Your task to perform on an android device: Open Chrome and go to the settings page Image 0: 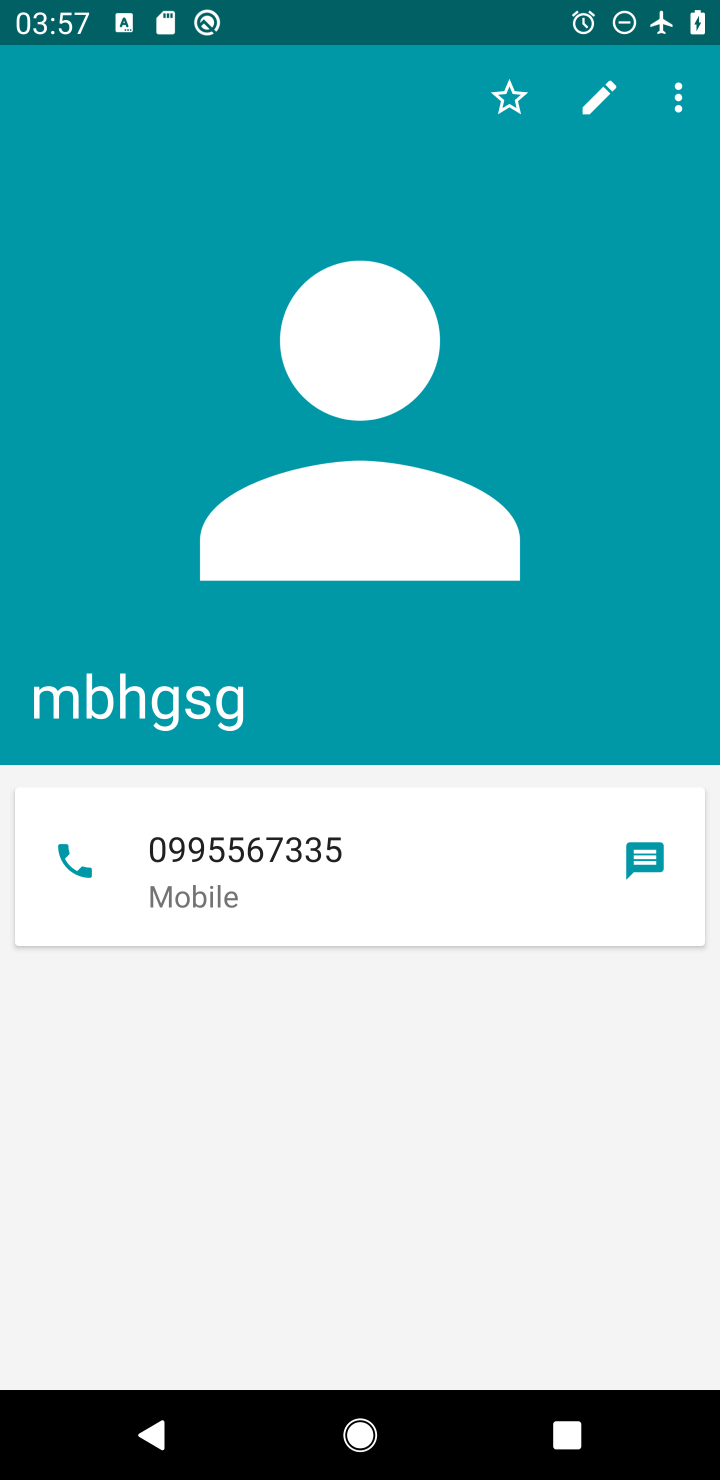
Step 0: press home button
Your task to perform on an android device: Open Chrome and go to the settings page Image 1: 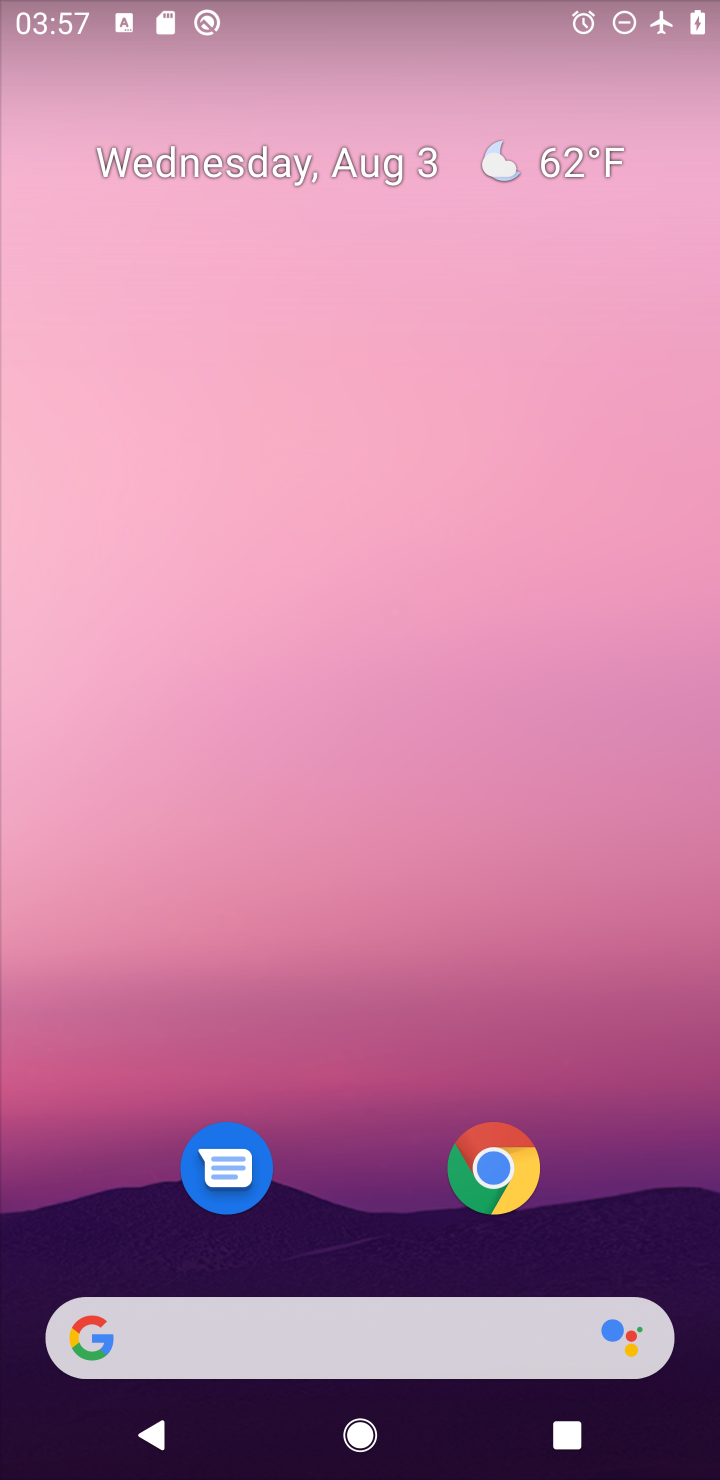
Step 1: click (496, 1168)
Your task to perform on an android device: Open Chrome and go to the settings page Image 2: 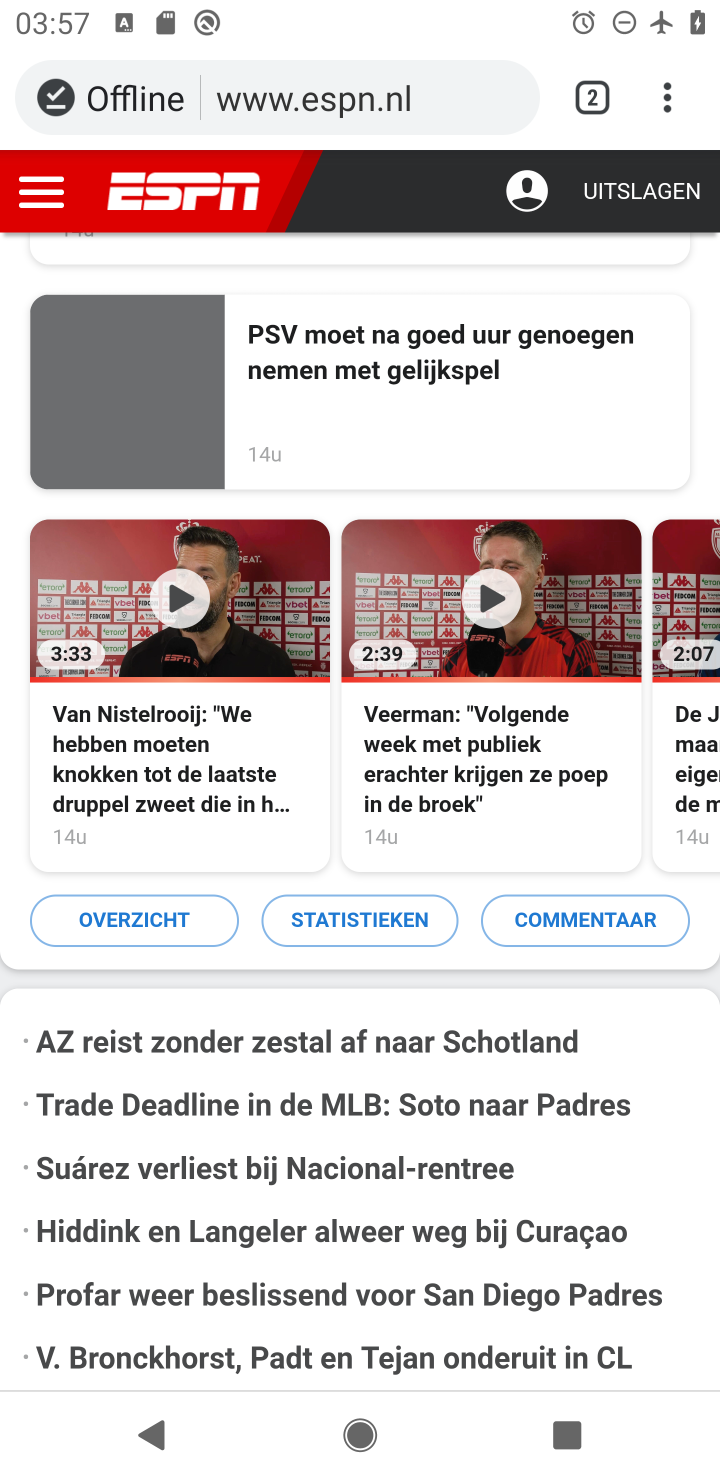
Step 2: click (658, 102)
Your task to perform on an android device: Open Chrome and go to the settings page Image 3: 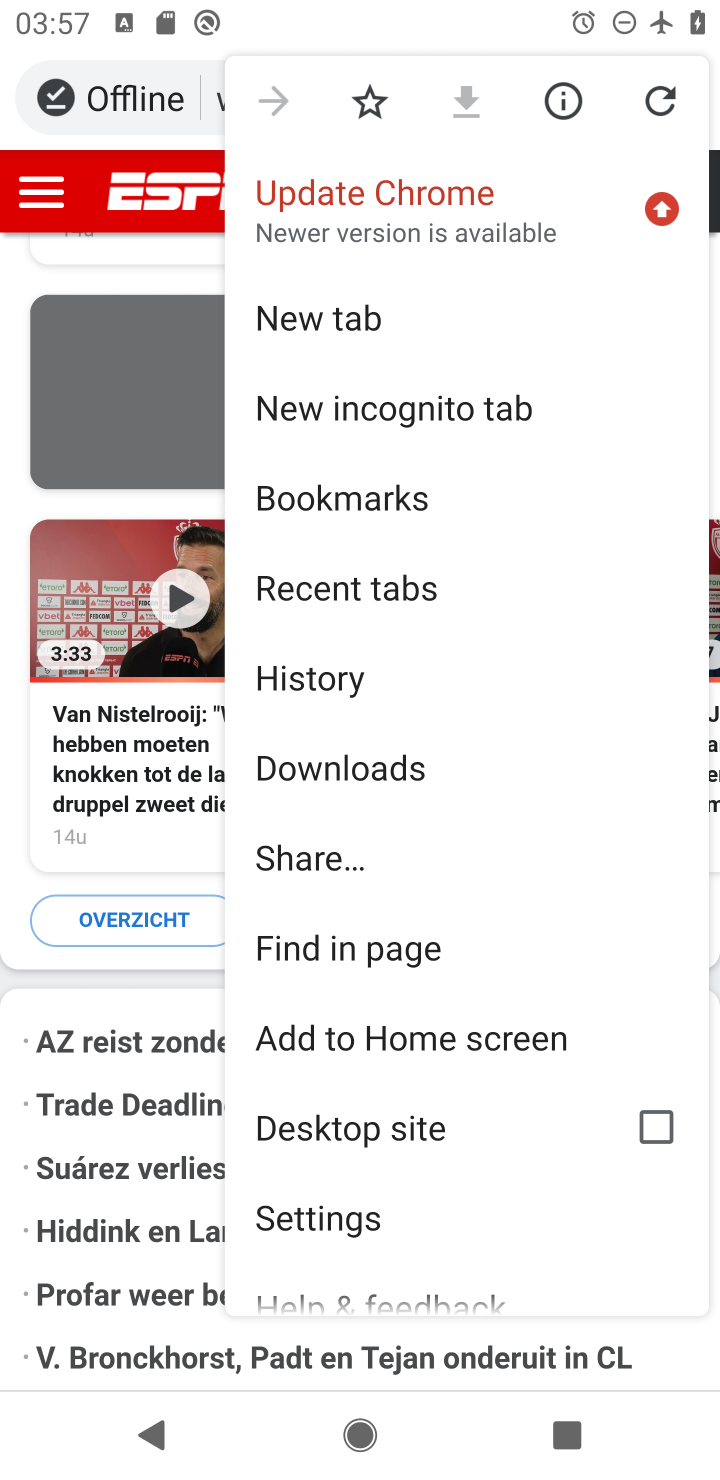
Step 3: click (326, 1219)
Your task to perform on an android device: Open Chrome and go to the settings page Image 4: 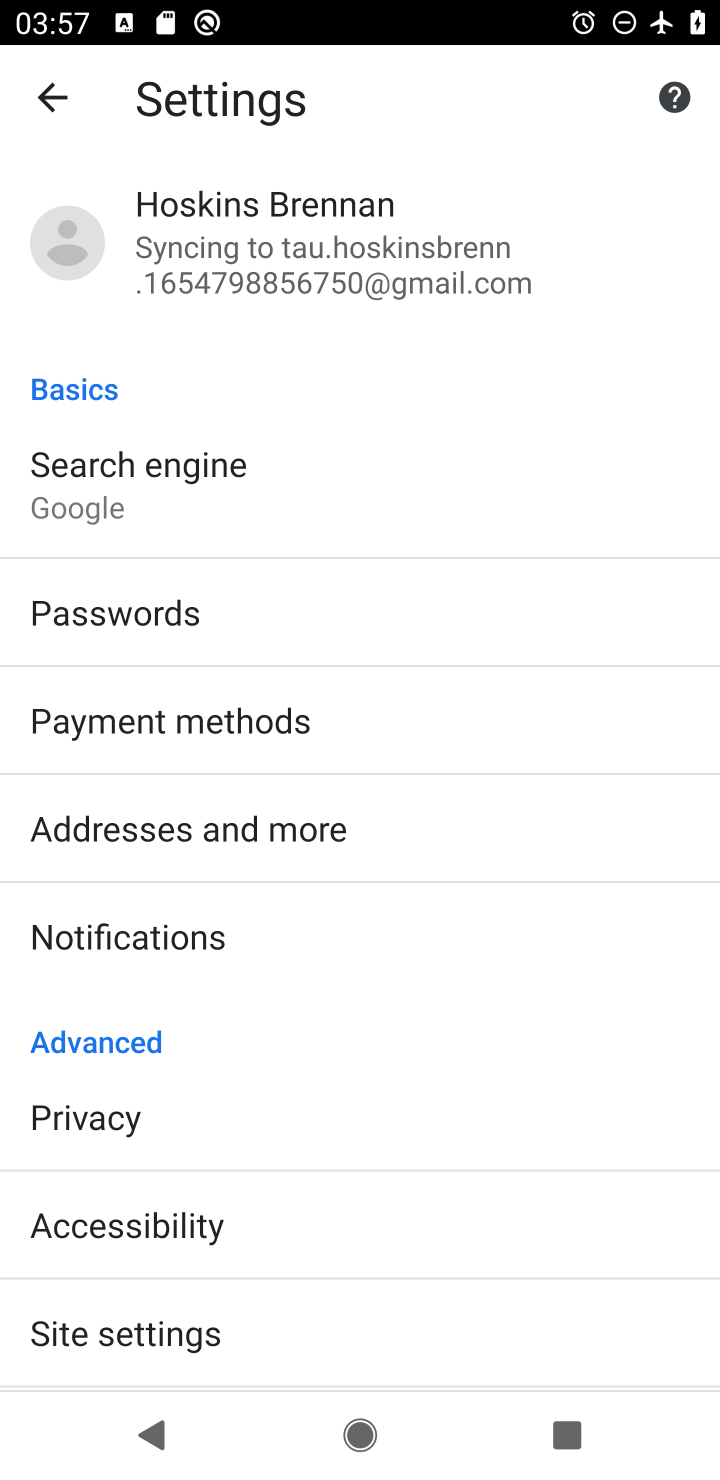
Step 4: task complete